Your task to perform on an android device: Do I have any events tomorrow? Image 0: 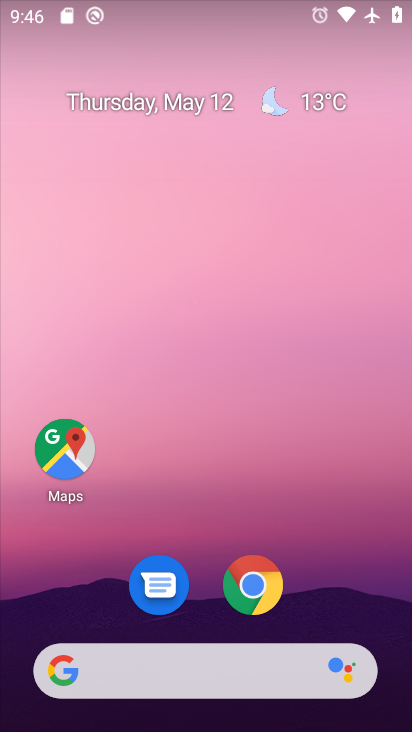
Step 0: drag from (296, 506) to (261, 97)
Your task to perform on an android device: Do I have any events tomorrow? Image 1: 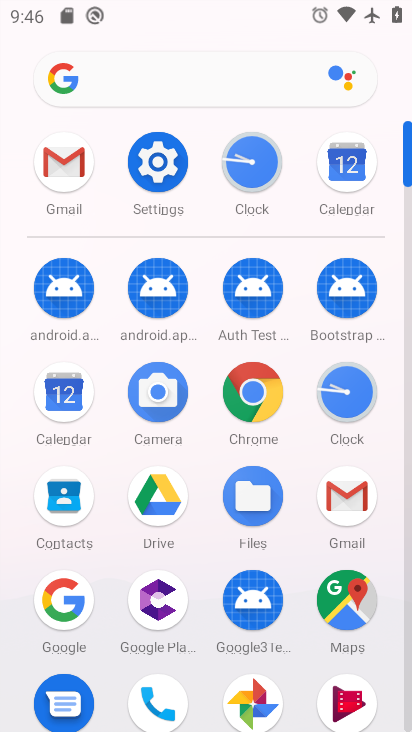
Step 1: click (57, 384)
Your task to perform on an android device: Do I have any events tomorrow? Image 2: 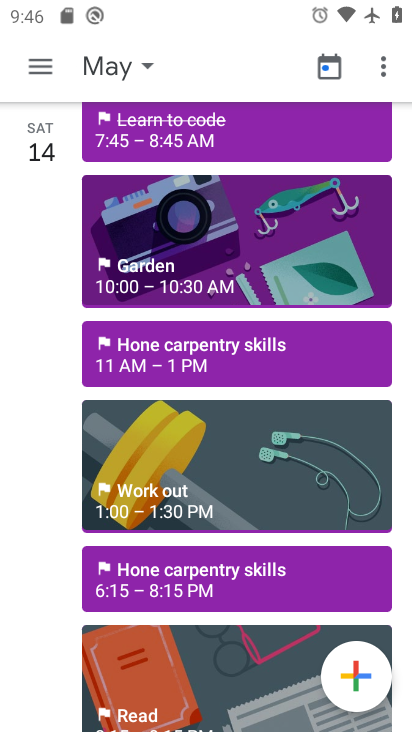
Step 2: task complete